Your task to perform on an android device: Search for sushi restaurants on Maps Image 0: 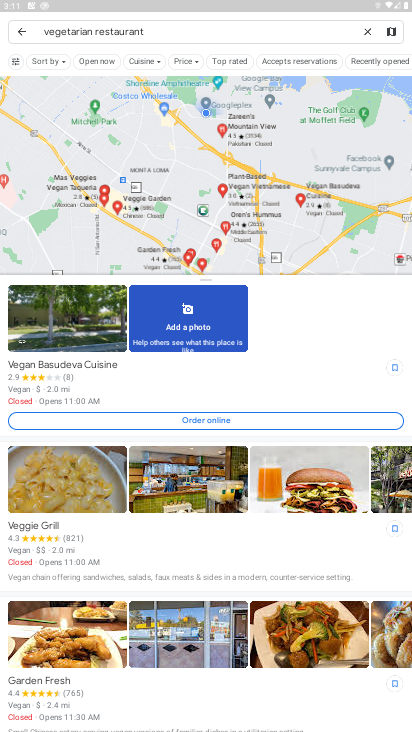
Step 0: click (18, 31)
Your task to perform on an android device: Search for sushi restaurants on Maps Image 1: 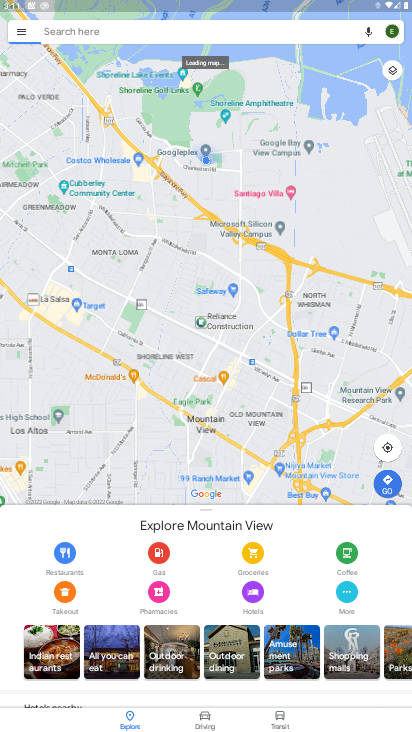
Step 1: click (52, 29)
Your task to perform on an android device: Search for sushi restaurants on Maps Image 2: 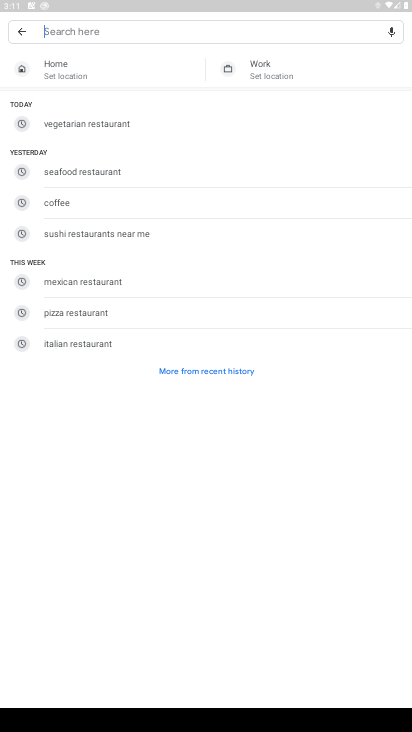
Step 2: type "sushi restaurants"
Your task to perform on an android device: Search for sushi restaurants on Maps Image 3: 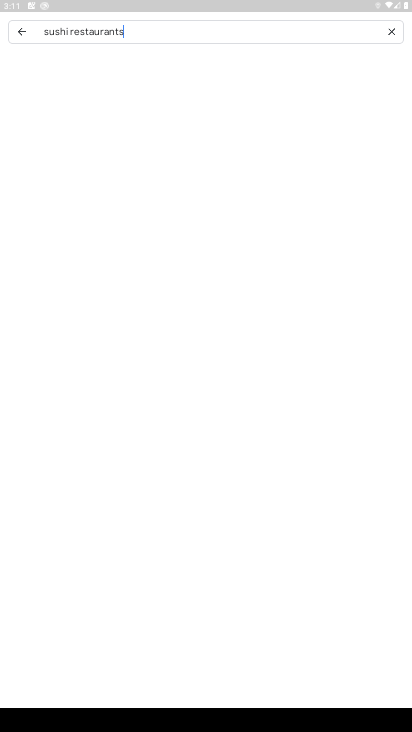
Step 3: type ""
Your task to perform on an android device: Search for sushi restaurants on Maps Image 4: 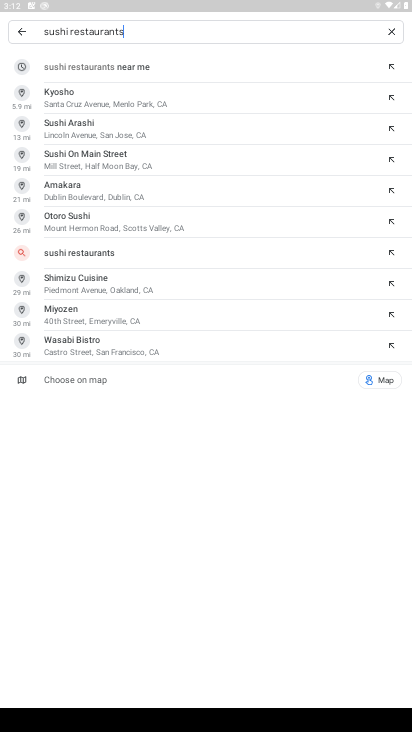
Step 4: click (84, 254)
Your task to perform on an android device: Search for sushi restaurants on Maps Image 5: 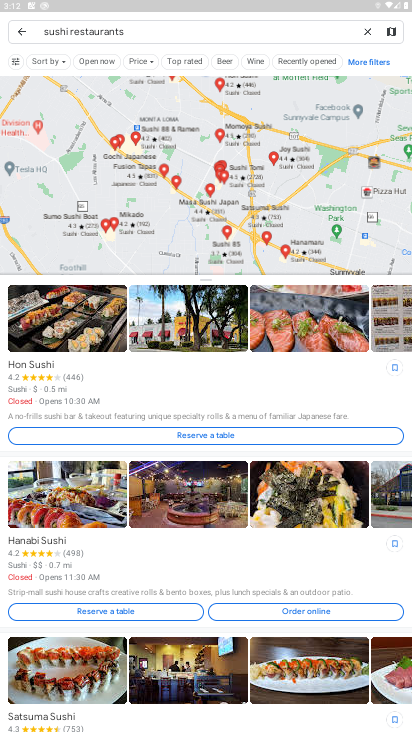
Step 5: task complete